Your task to perform on an android device: Open the calendar app, open the side menu, and click the "Day" option Image 0: 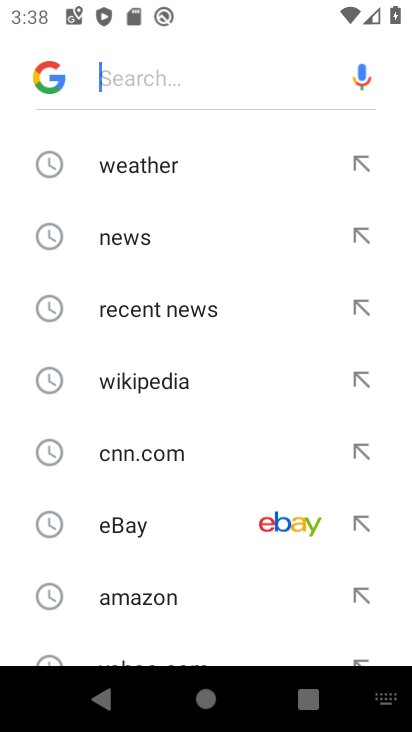
Step 0: press home button
Your task to perform on an android device: Open the calendar app, open the side menu, and click the "Day" option Image 1: 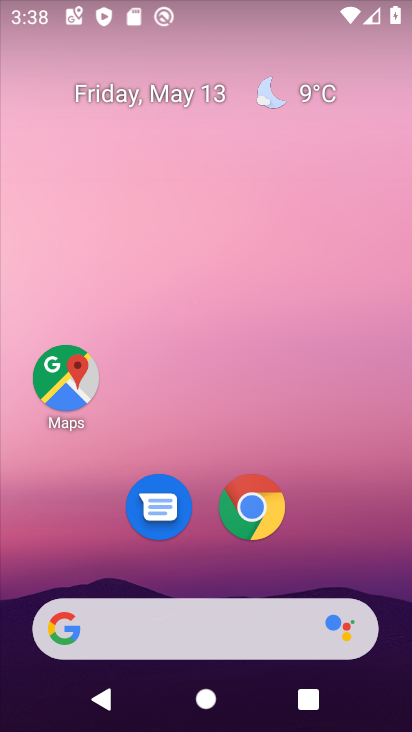
Step 1: drag from (356, 537) to (283, 63)
Your task to perform on an android device: Open the calendar app, open the side menu, and click the "Day" option Image 2: 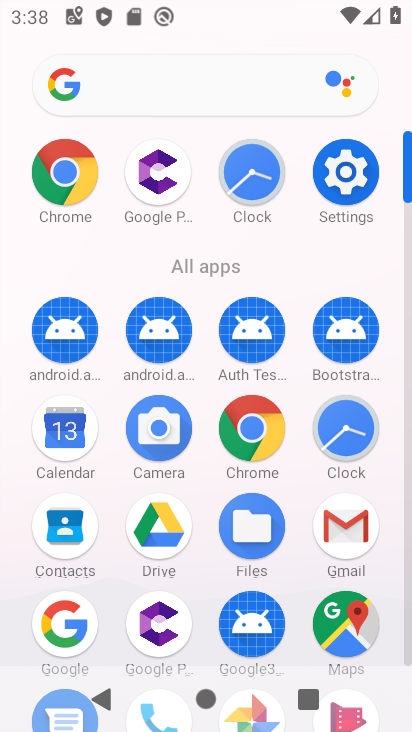
Step 2: click (42, 434)
Your task to perform on an android device: Open the calendar app, open the side menu, and click the "Day" option Image 3: 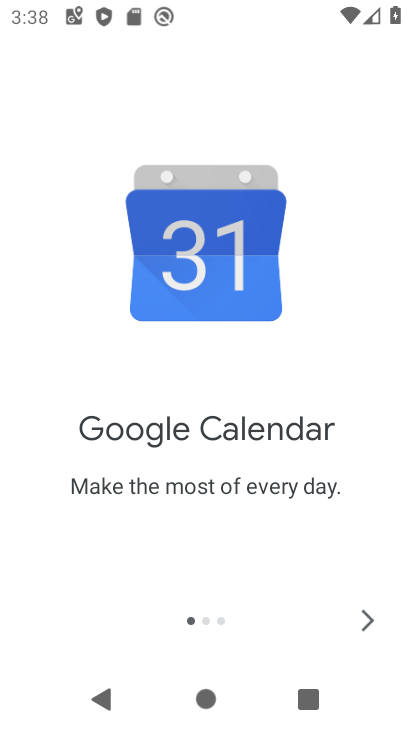
Step 3: click (376, 611)
Your task to perform on an android device: Open the calendar app, open the side menu, and click the "Day" option Image 4: 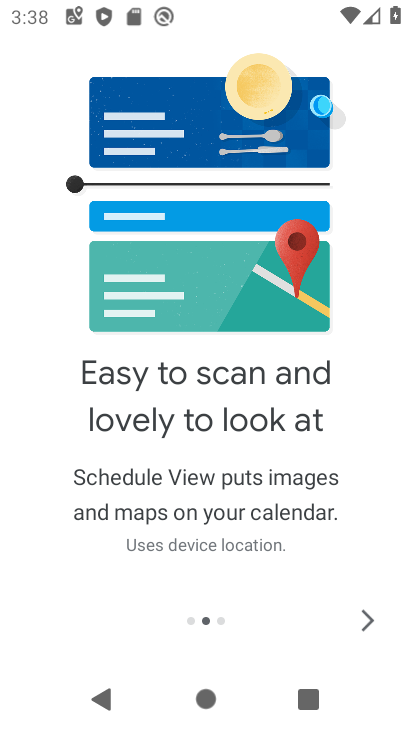
Step 4: click (376, 611)
Your task to perform on an android device: Open the calendar app, open the side menu, and click the "Day" option Image 5: 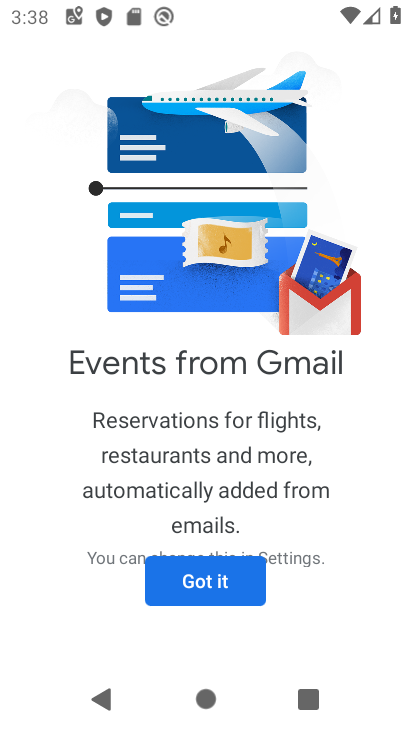
Step 5: click (204, 580)
Your task to perform on an android device: Open the calendar app, open the side menu, and click the "Day" option Image 6: 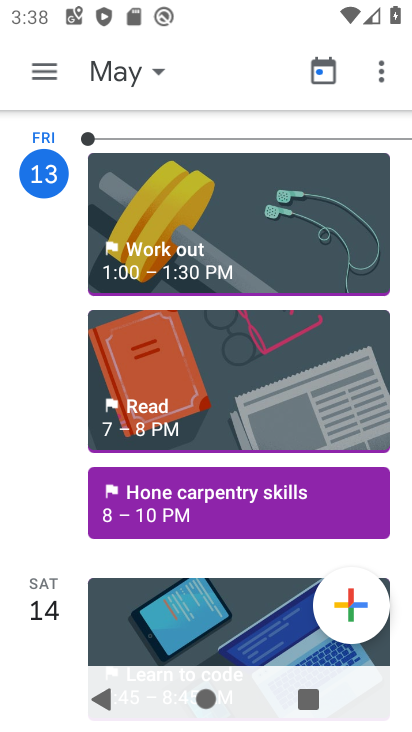
Step 6: click (58, 69)
Your task to perform on an android device: Open the calendar app, open the side menu, and click the "Day" option Image 7: 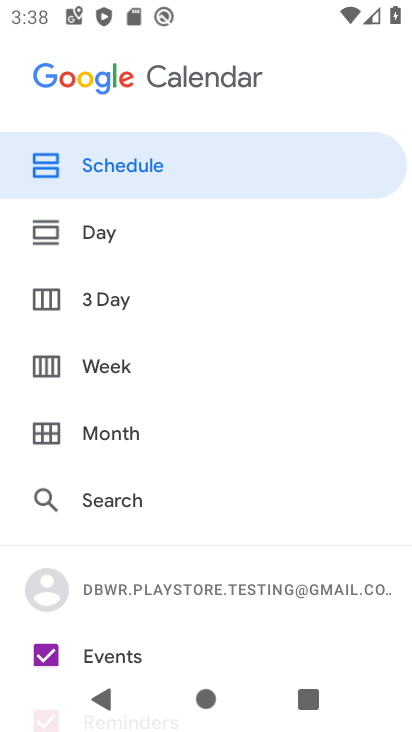
Step 7: click (95, 240)
Your task to perform on an android device: Open the calendar app, open the side menu, and click the "Day" option Image 8: 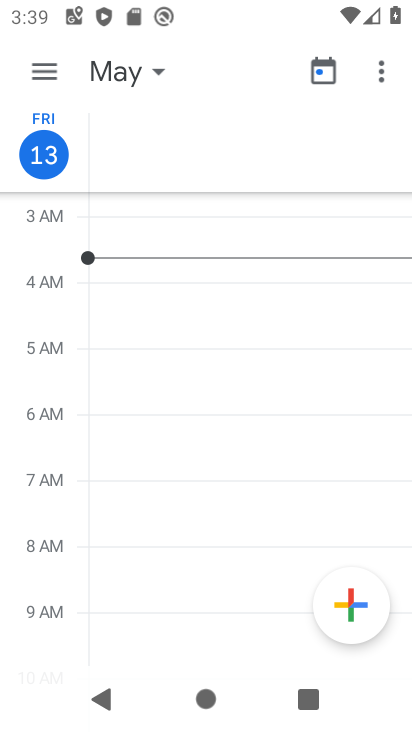
Step 8: task complete